Your task to perform on an android device: Clear the shopping cart on newegg. Image 0: 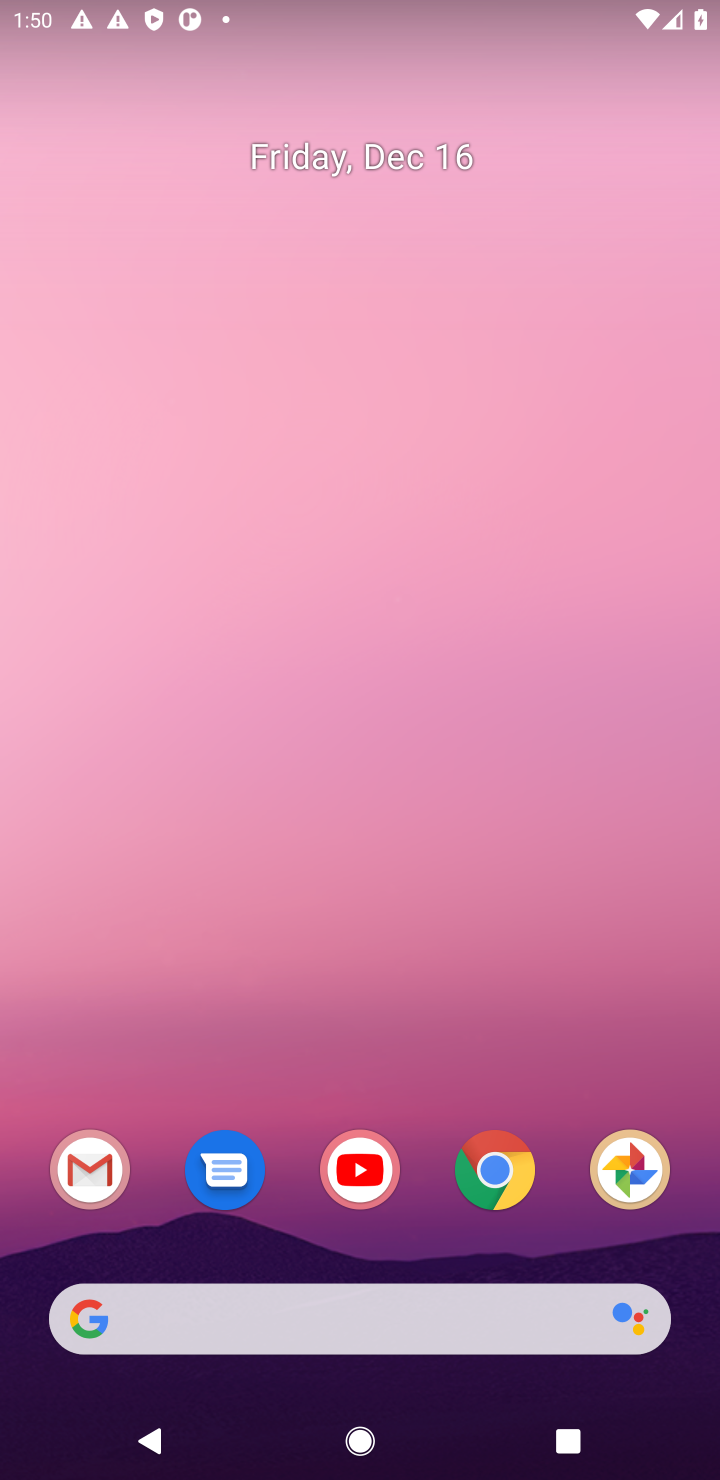
Step 0: click (500, 1158)
Your task to perform on an android device: Clear the shopping cart on newegg. Image 1: 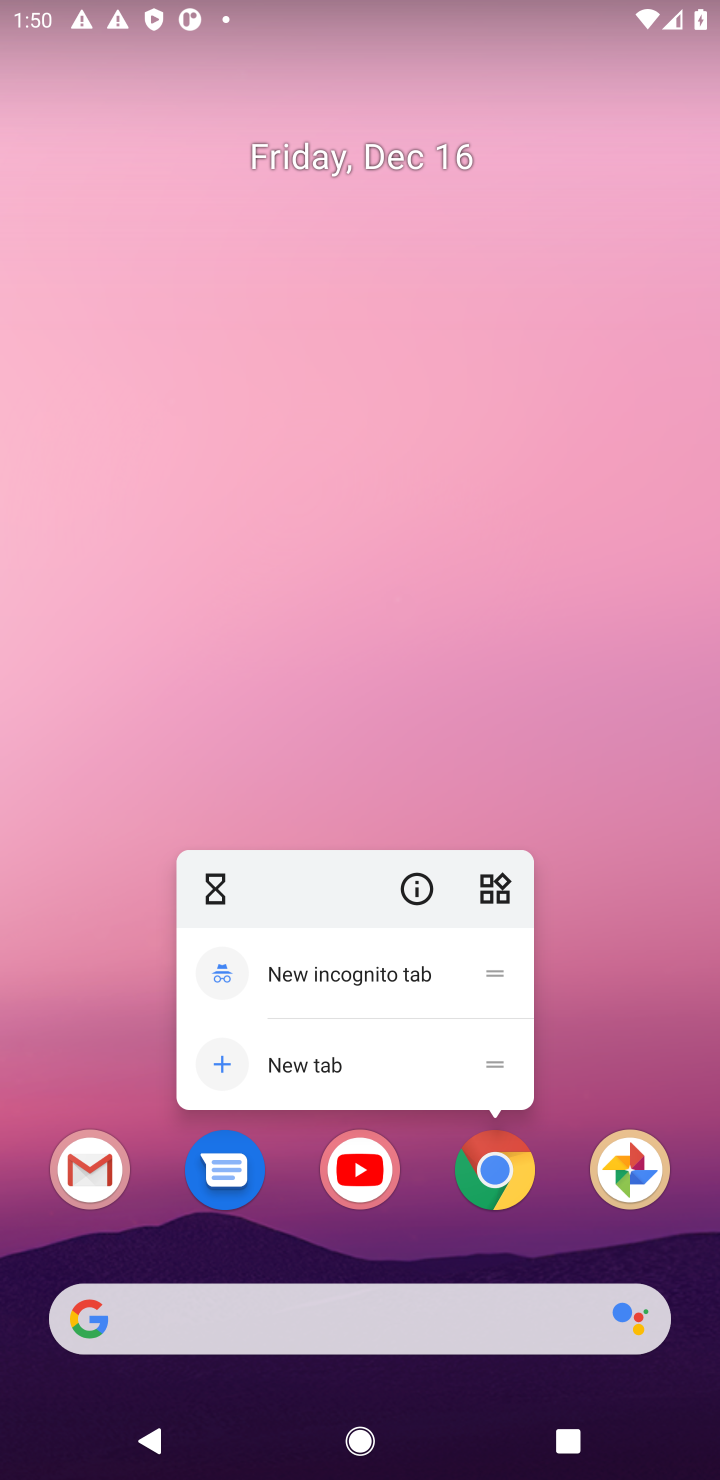
Step 1: click (495, 1164)
Your task to perform on an android device: Clear the shopping cart on newegg. Image 2: 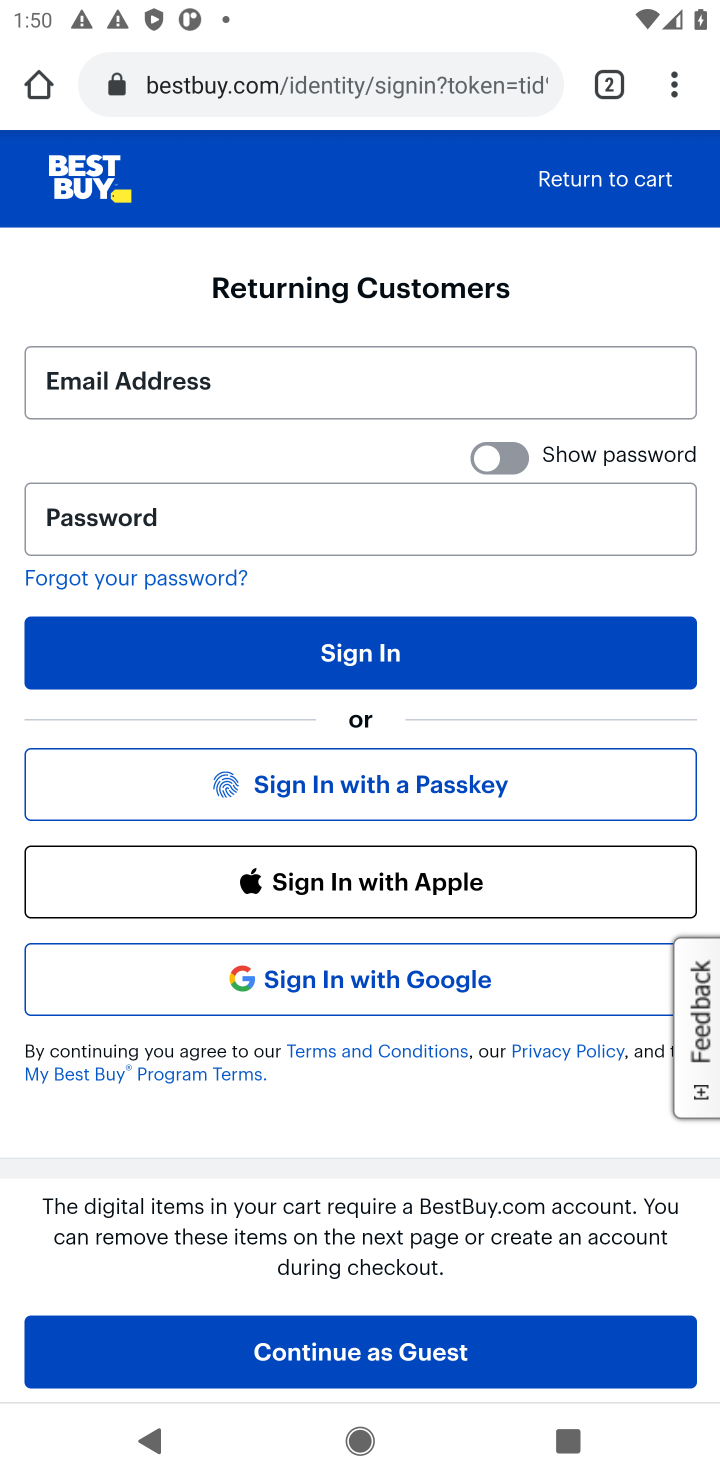
Step 2: click (272, 96)
Your task to perform on an android device: Clear the shopping cart on newegg. Image 3: 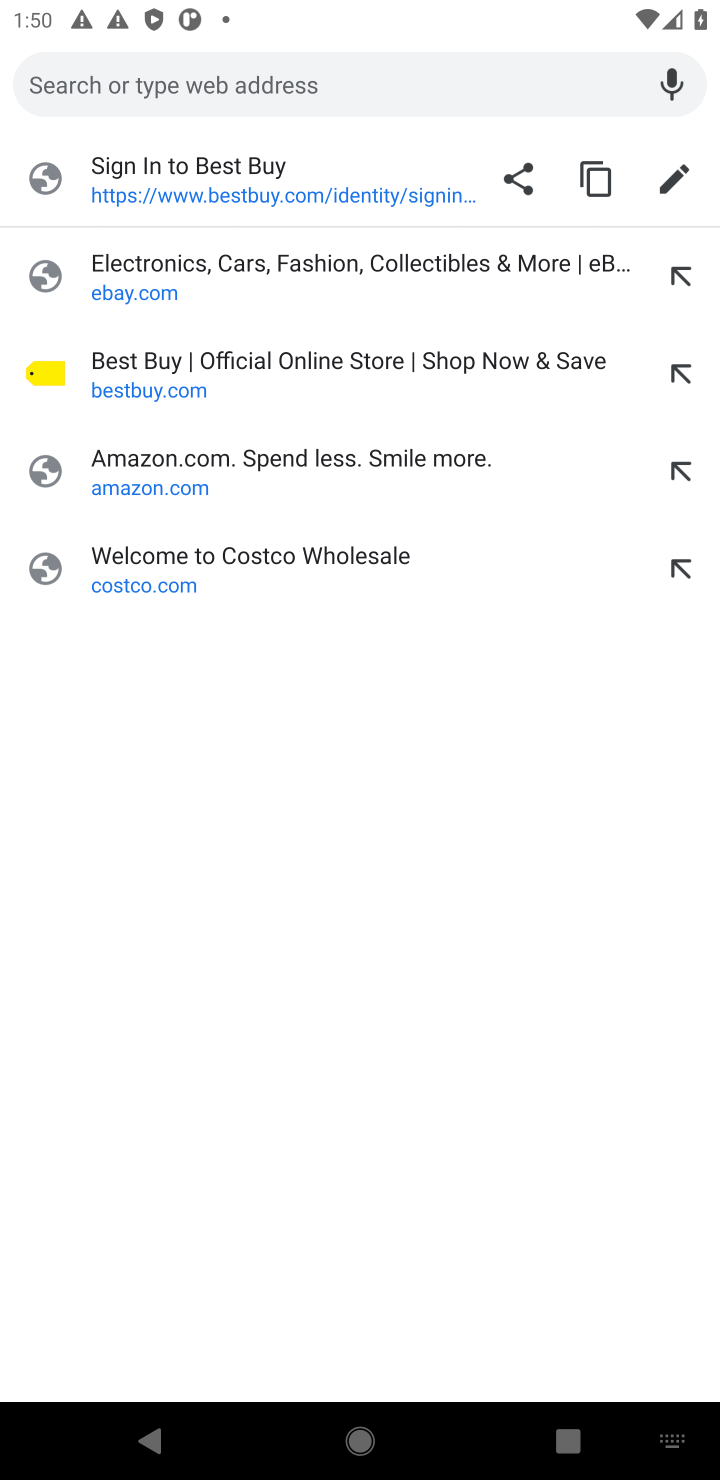
Step 3: type "newegg.com"
Your task to perform on an android device: Clear the shopping cart on newegg. Image 4: 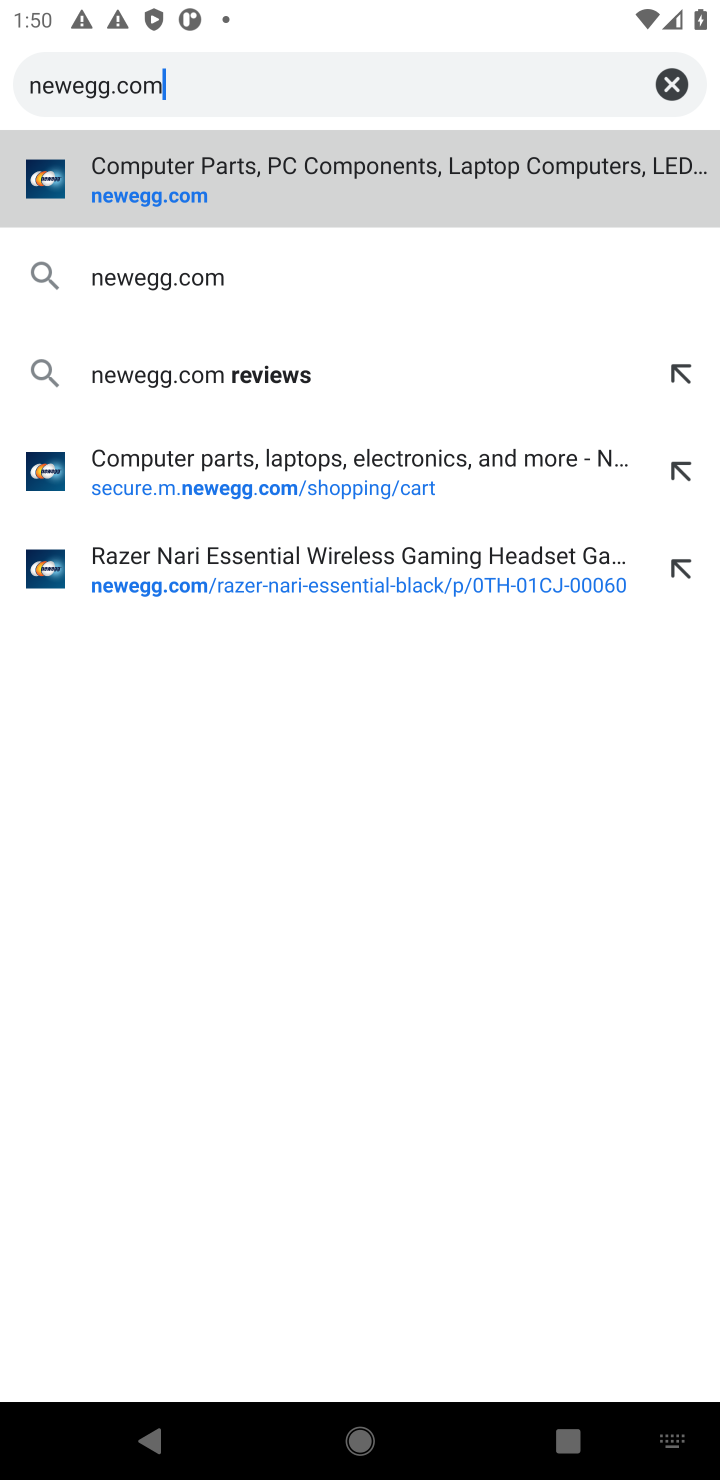
Step 4: click (96, 190)
Your task to perform on an android device: Clear the shopping cart on newegg. Image 5: 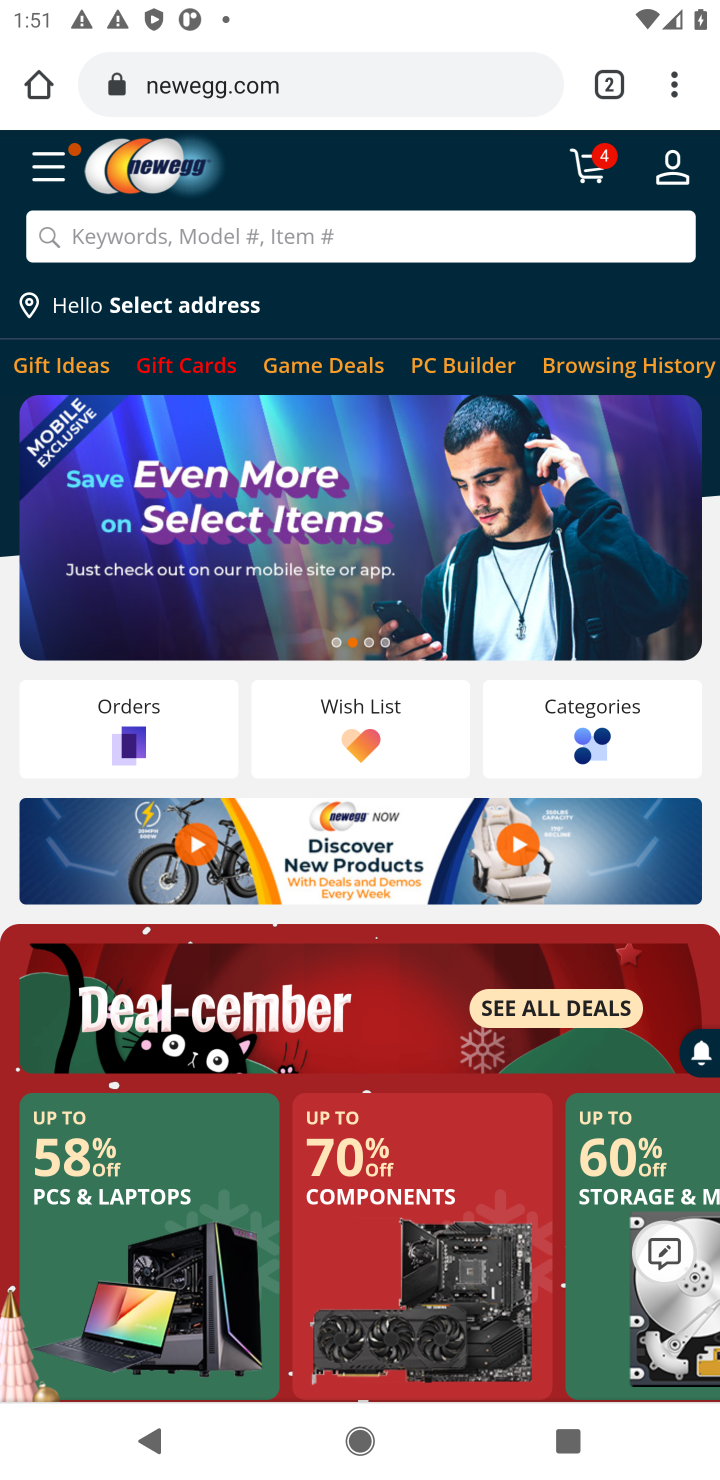
Step 5: click (595, 166)
Your task to perform on an android device: Clear the shopping cart on newegg. Image 6: 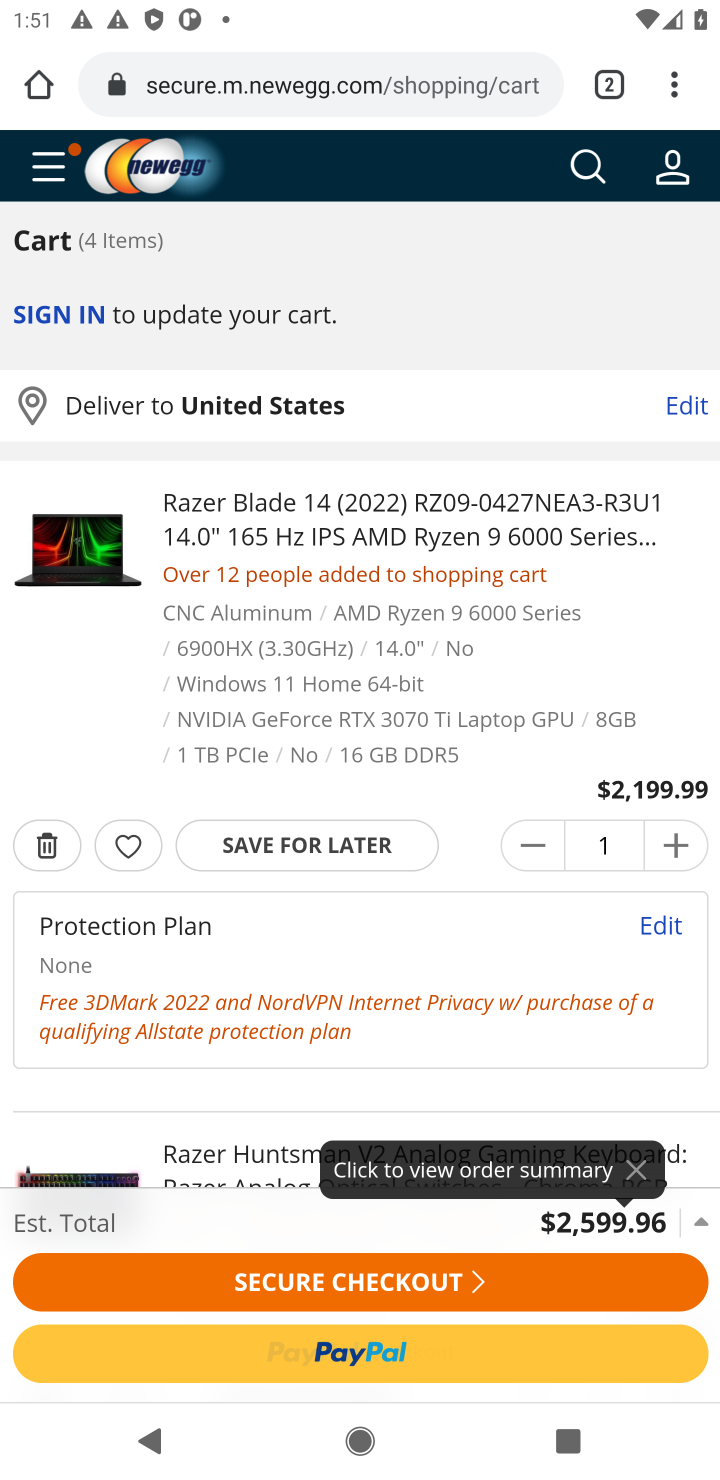
Step 6: click (39, 845)
Your task to perform on an android device: Clear the shopping cart on newegg. Image 7: 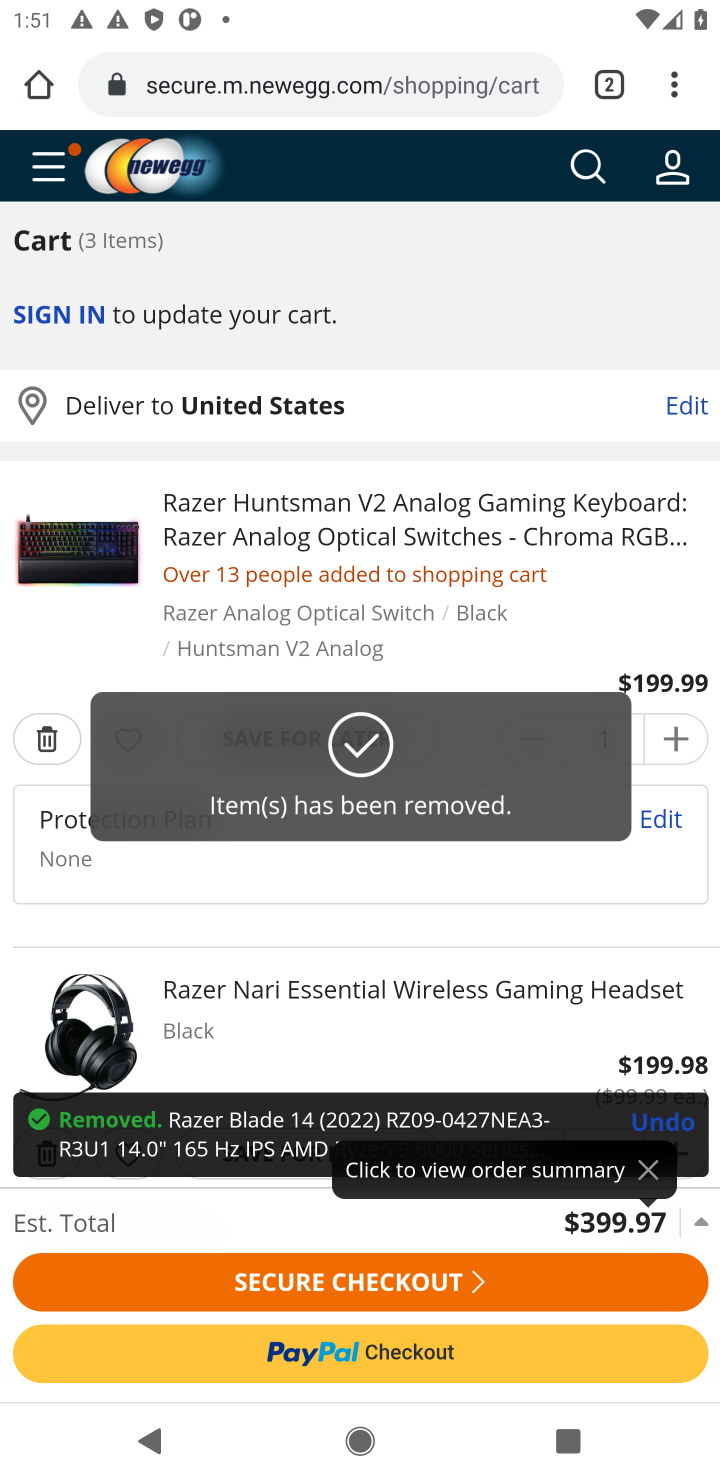
Step 7: click (42, 744)
Your task to perform on an android device: Clear the shopping cart on newegg. Image 8: 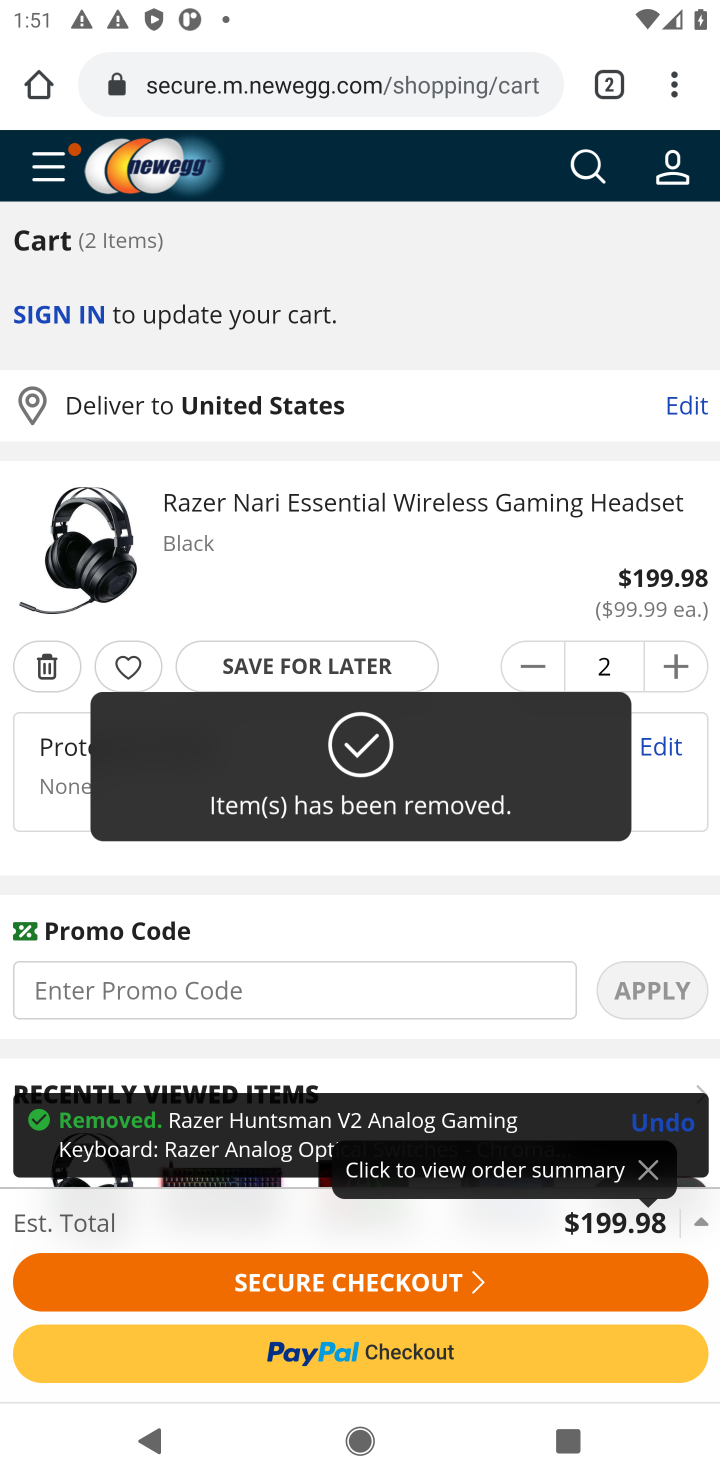
Step 8: click (38, 673)
Your task to perform on an android device: Clear the shopping cart on newegg. Image 9: 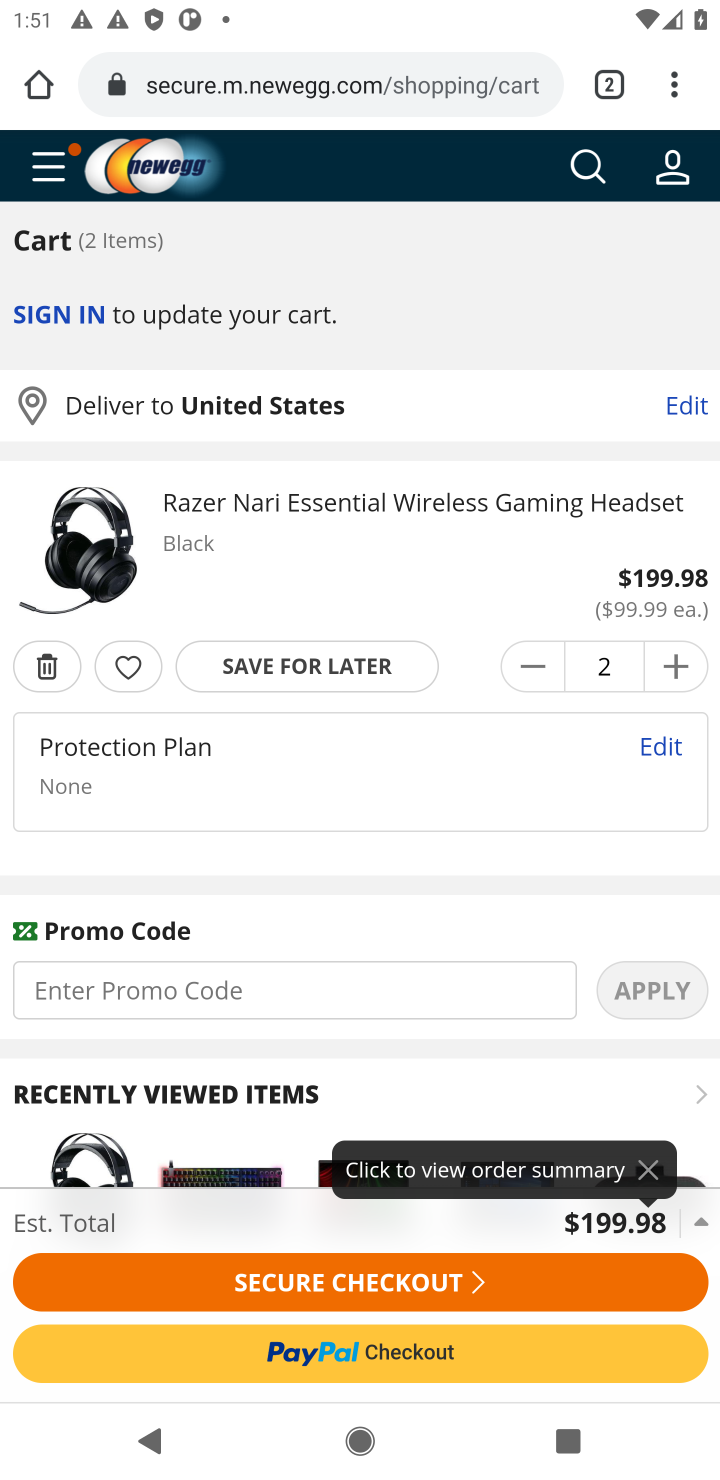
Step 9: click (49, 670)
Your task to perform on an android device: Clear the shopping cart on newegg. Image 10: 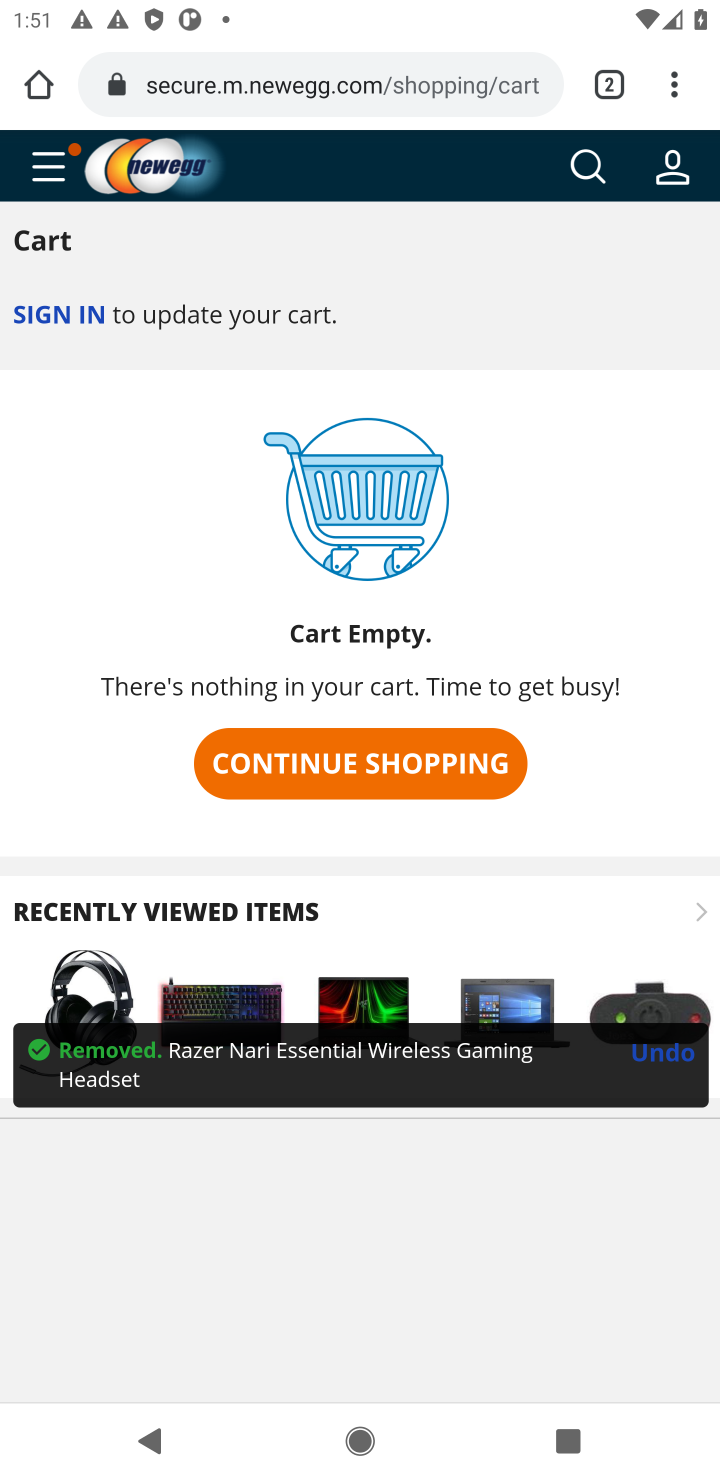
Step 10: task complete